Your task to perform on an android device: toggle notification dots Image 0: 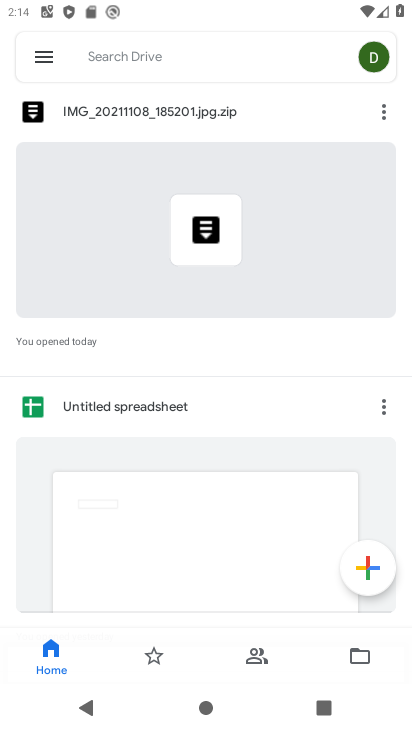
Step 0: press back button
Your task to perform on an android device: toggle notification dots Image 1: 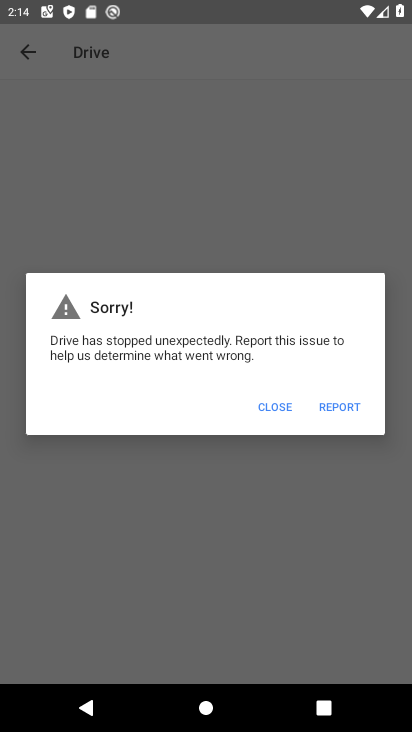
Step 1: press home button
Your task to perform on an android device: toggle notification dots Image 2: 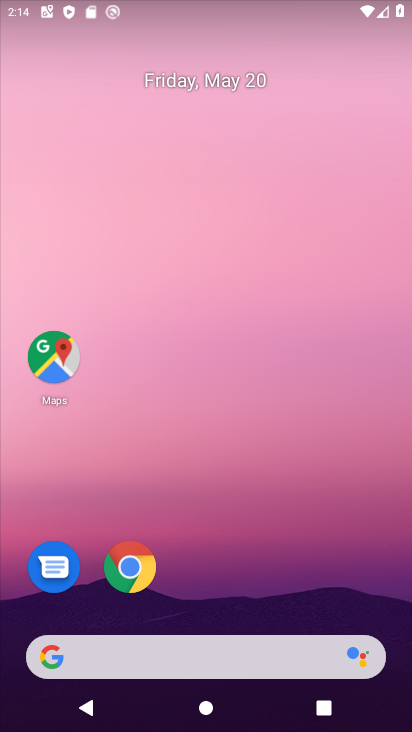
Step 2: drag from (258, 534) to (222, 44)
Your task to perform on an android device: toggle notification dots Image 3: 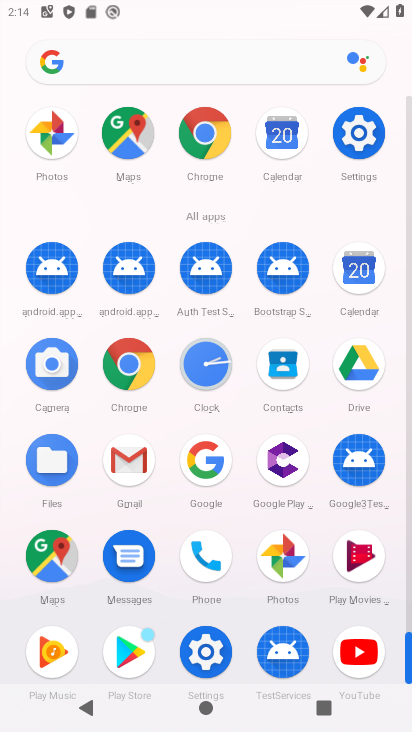
Step 3: drag from (8, 593) to (16, 294)
Your task to perform on an android device: toggle notification dots Image 4: 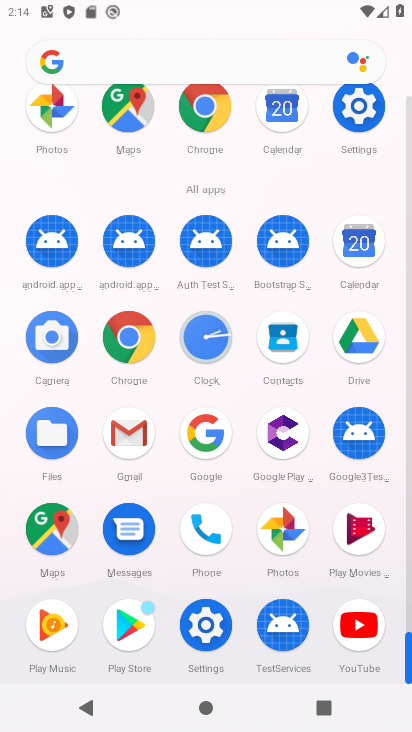
Step 4: click (202, 619)
Your task to perform on an android device: toggle notification dots Image 5: 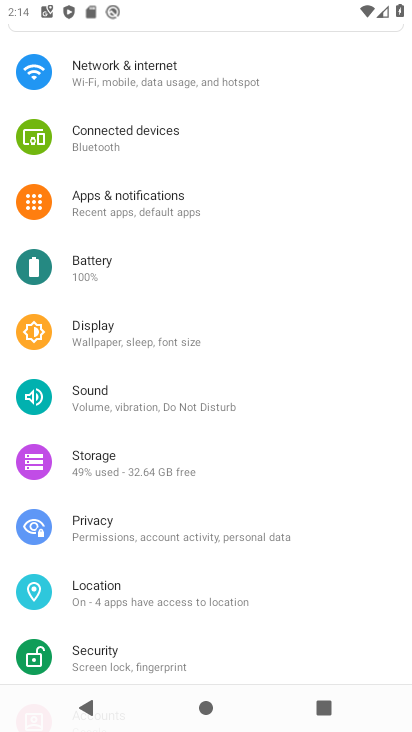
Step 5: drag from (279, 164) to (225, 621)
Your task to perform on an android device: toggle notification dots Image 6: 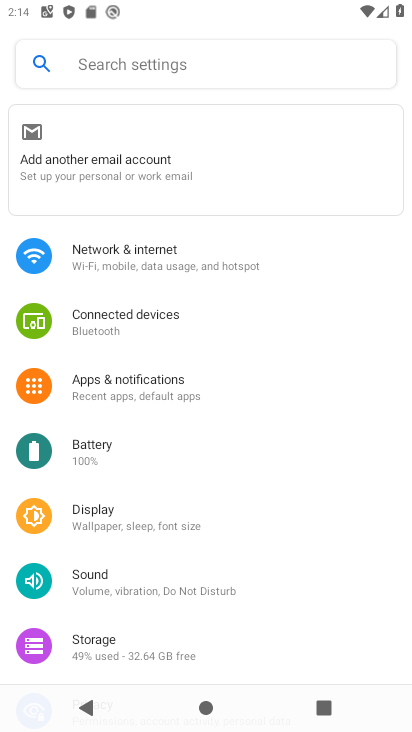
Step 6: click (142, 373)
Your task to perform on an android device: toggle notification dots Image 7: 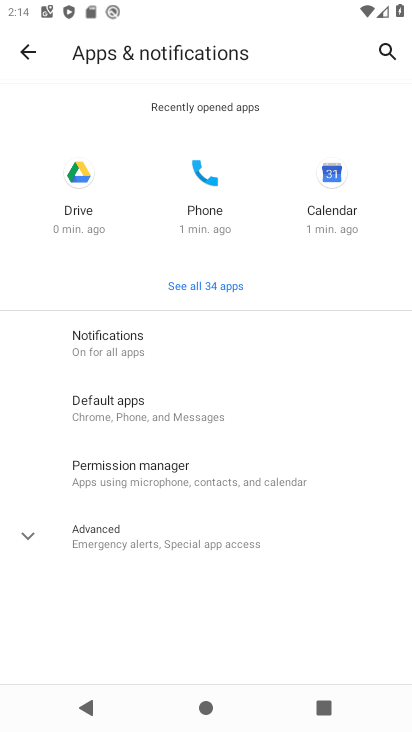
Step 7: click (28, 542)
Your task to perform on an android device: toggle notification dots Image 8: 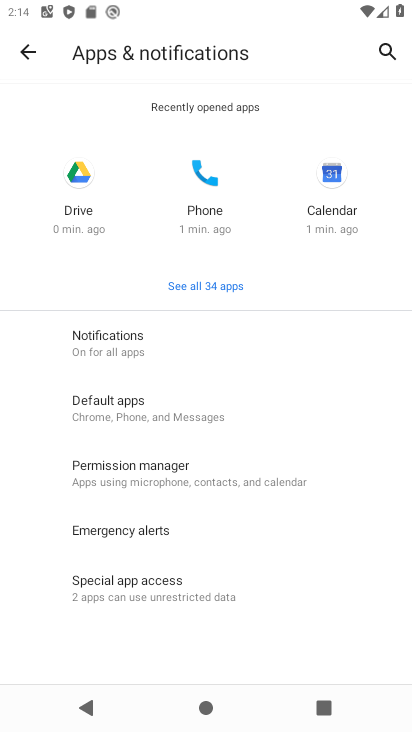
Step 8: click (160, 341)
Your task to perform on an android device: toggle notification dots Image 9: 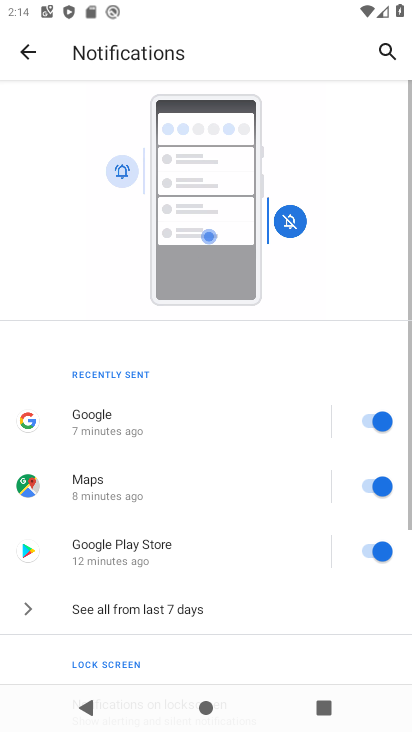
Step 9: drag from (195, 415) to (231, 101)
Your task to perform on an android device: toggle notification dots Image 10: 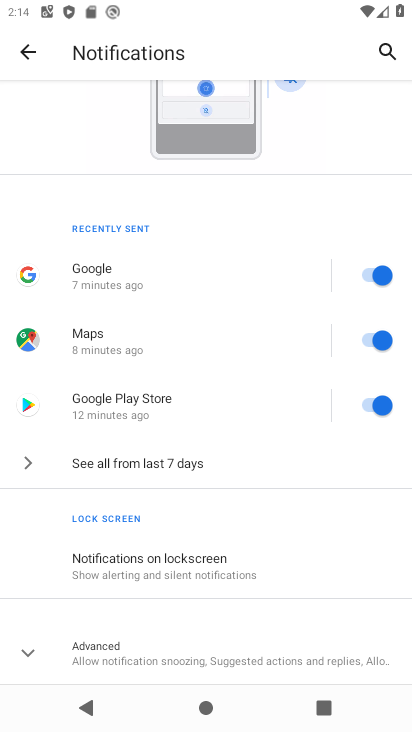
Step 10: drag from (192, 589) to (198, 218)
Your task to perform on an android device: toggle notification dots Image 11: 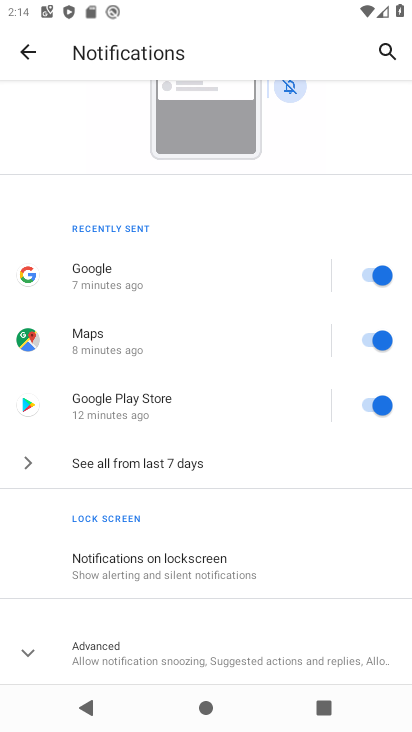
Step 11: click (49, 652)
Your task to perform on an android device: toggle notification dots Image 12: 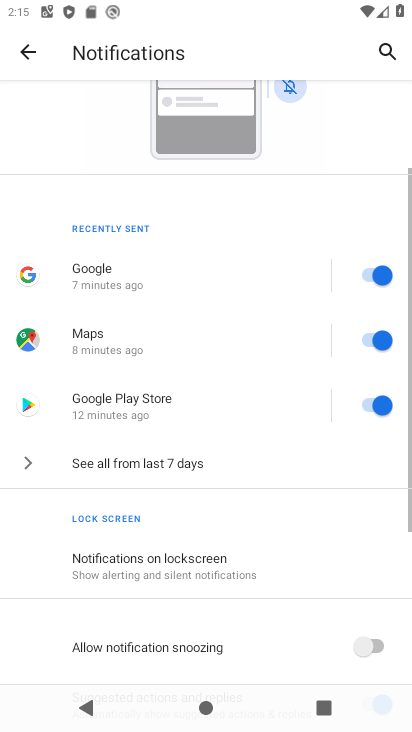
Step 12: drag from (166, 612) to (230, 218)
Your task to perform on an android device: toggle notification dots Image 13: 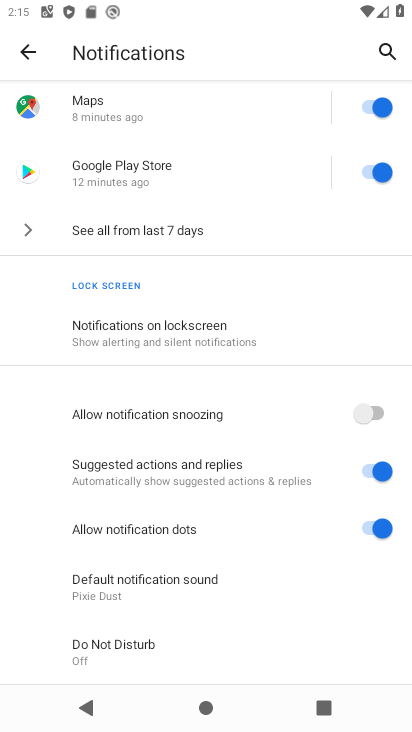
Step 13: click (376, 528)
Your task to perform on an android device: toggle notification dots Image 14: 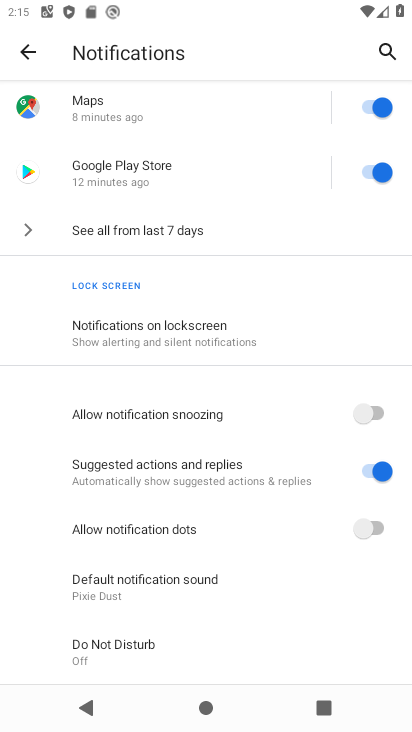
Step 14: task complete